Your task to perform on an android device: change the upload size in google photos Image 0: 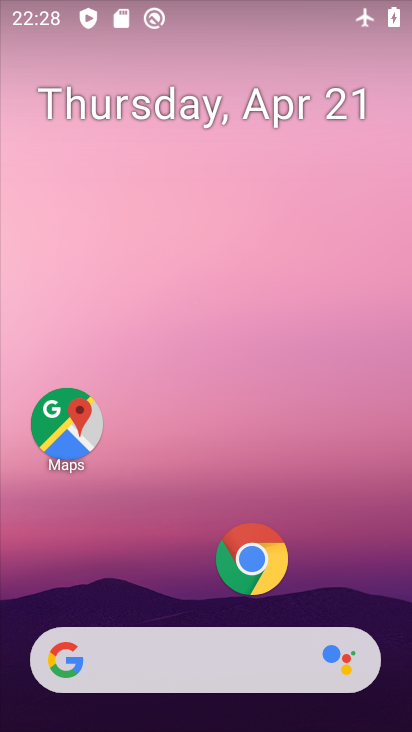
Step 0: drag from (137, 601) to (248, 141)
Your task to perform on an android device: change the upload size in google photos Image 1: 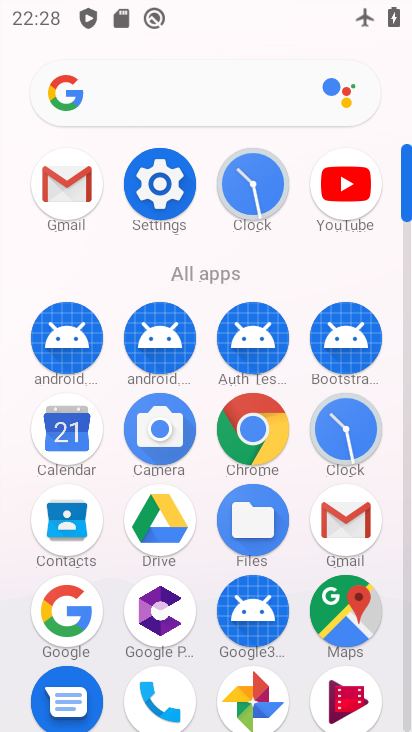
Step 1: click (257, 698)
Your task to perform on an android device: change the upload size in google photos Image 2: 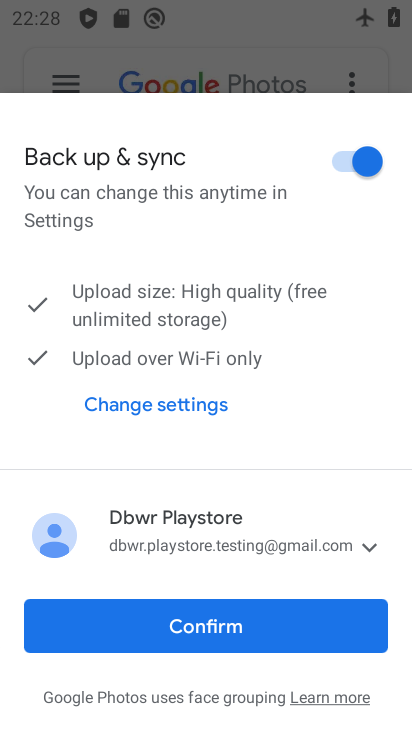
Step 2: click (235, 628)
Your task to perform on an android device: change the upload size in google photos Image 3: 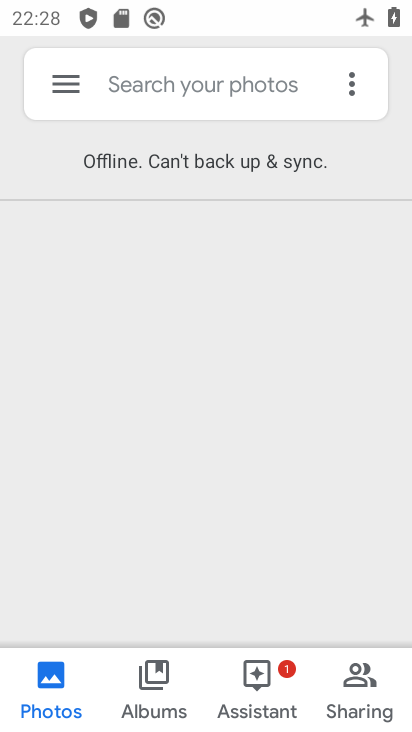
Step 3: task complete